Your task to perform on an android device: empty trash in the gmail app Image 0: 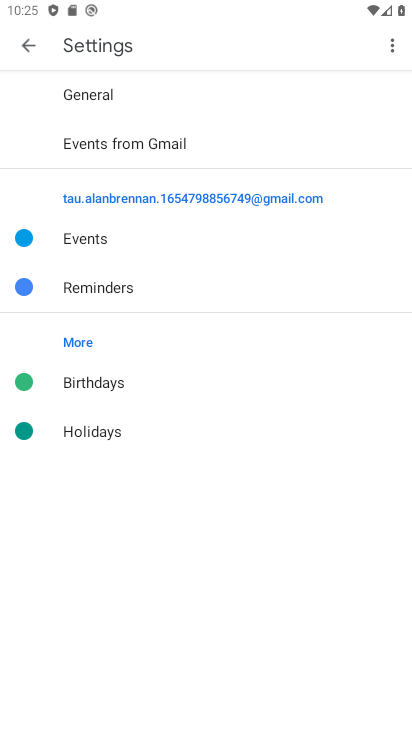
Step 0: press home button
Your task to perform on an android device: empty trash in the gmail app Image 1: 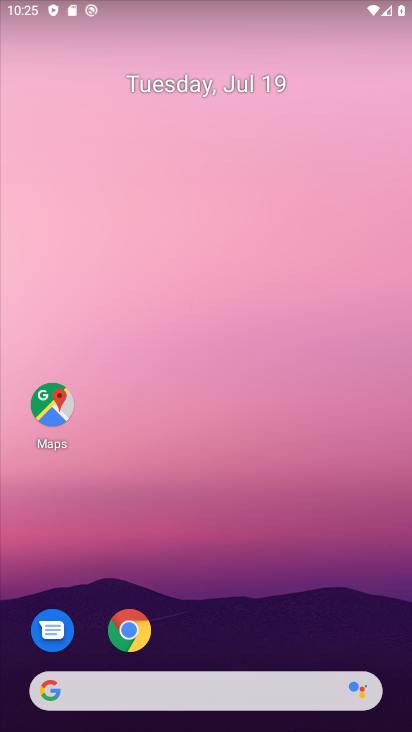
Step 1: drag from (226, 682) to (226, 181)
Your task to perform on an android device: empty trash in the gmail app Image 2: 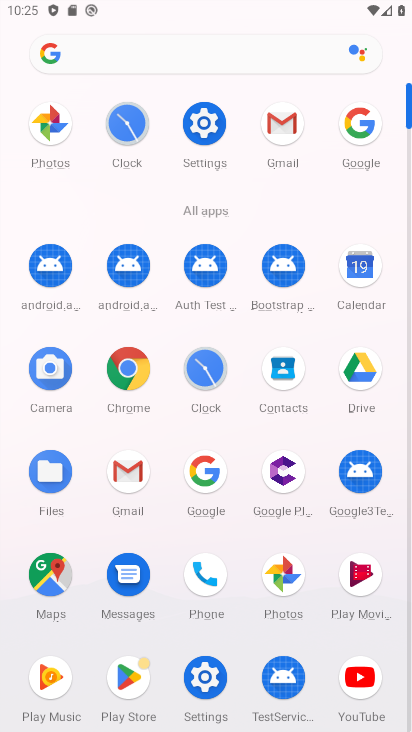
Step 2: click (125, 476)
Your task to perform on an android device: empty trash in the gmail app Image 3: 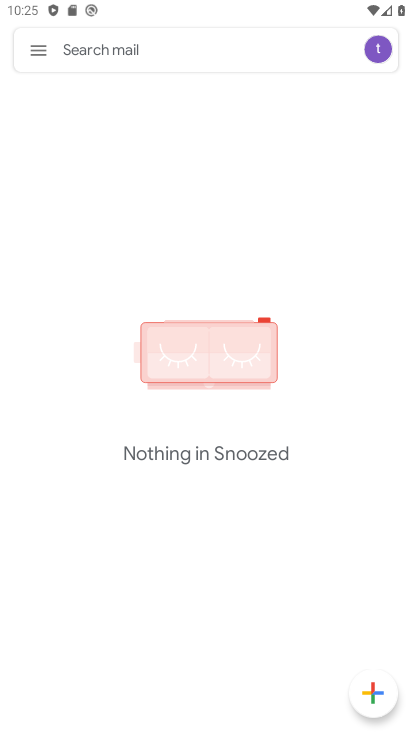
Step 3: click (38, 51)
Your task to perform on an android device: empty trash in the gmail app Image 4: 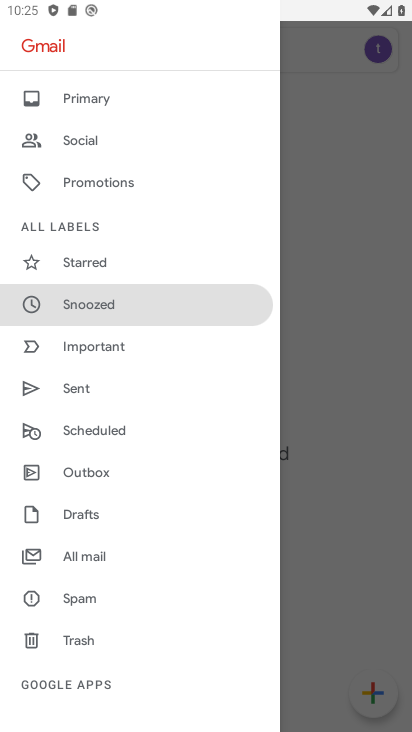
Step 4: click (80, 642)
Your task to perform on an android device: empty trash in the gmail app Image 5: 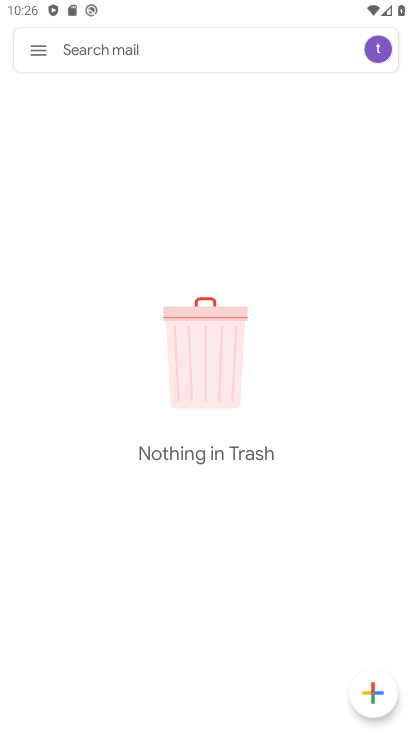
Step 5: task complete